Your task to perform on an android device: see sites visited before in the chrome app Image 0: 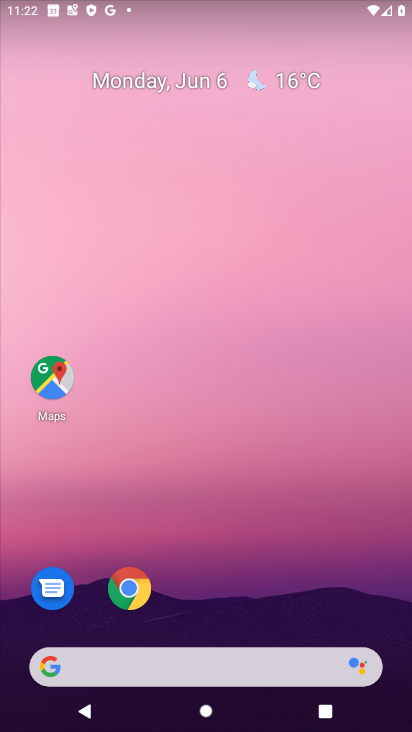
Step 0: click (127, 592)
Your task to perform on an android device: see sites visited before in the chrome app Image 1: 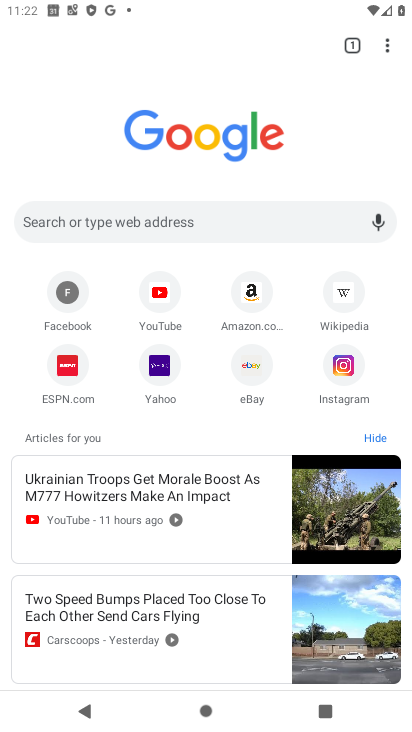
Step 1: click (382, 43)
Your task to perform on an android device: see sites visited before in the chrome app Image 2: 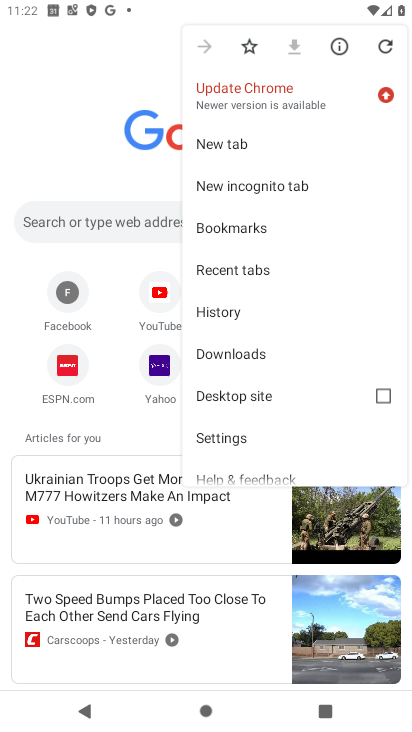
Step 2: click (231, 425)
Your task to perform on an android device: see sites visited before in the chrome app Image 3: 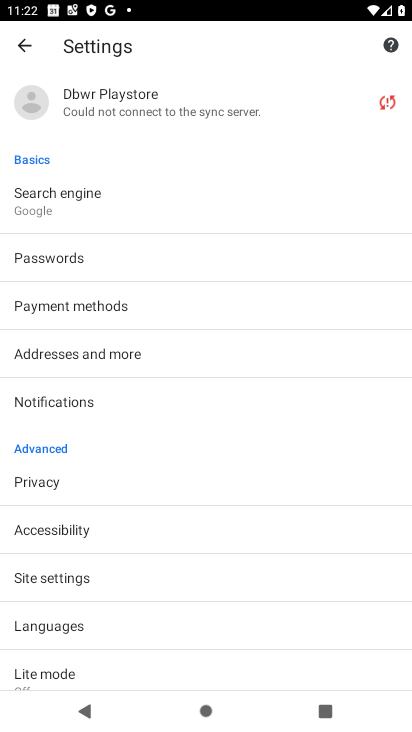
Step 3: click (74, 570)
Your task to perform on an android device: see sites visited before in the chrome app Image 4: 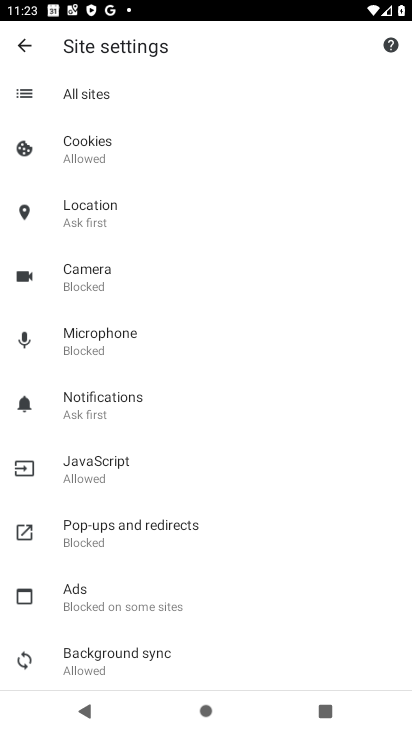
Step 4: click (95, 91)
Your task to perform on an android device: see sites visited before in the chrome app Image 5: 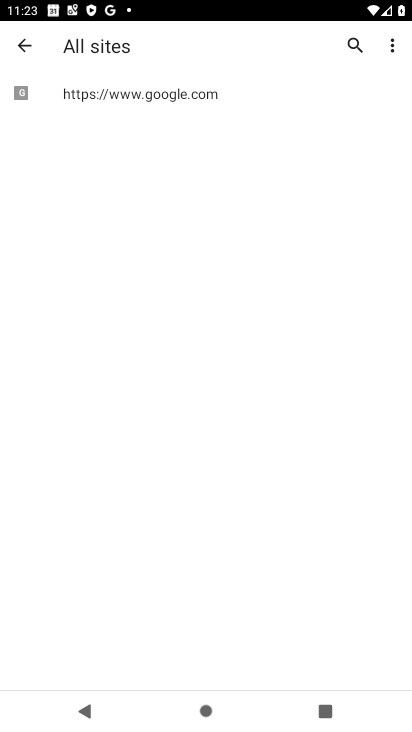
Step 5: task complete